Your task to perform on an android device: open a bookmark in the chrome app Image 0: 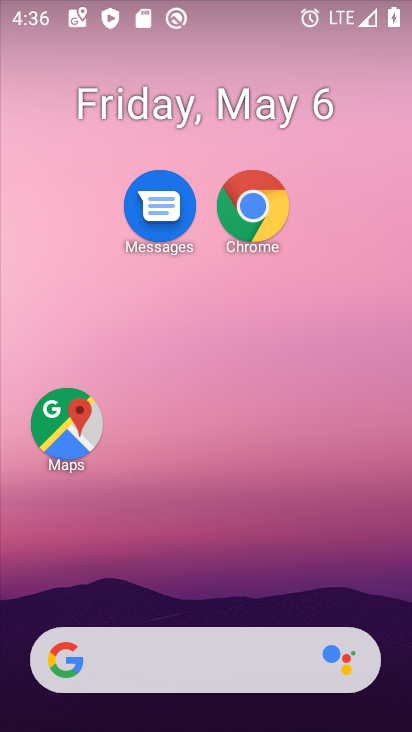
Step 0: click (258, 205)
Your task to perform on an android device: open a bookmark in the chrome app Image 1: 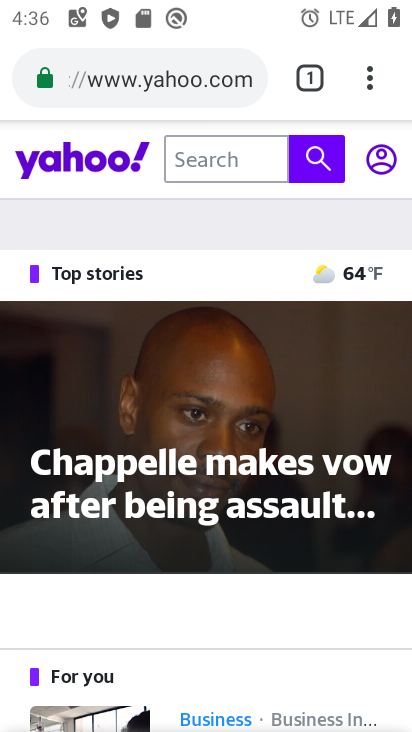
Step 1: click (370, 70)
Your task to perform on an android device: open a bookmark in the chrome app Image 2: 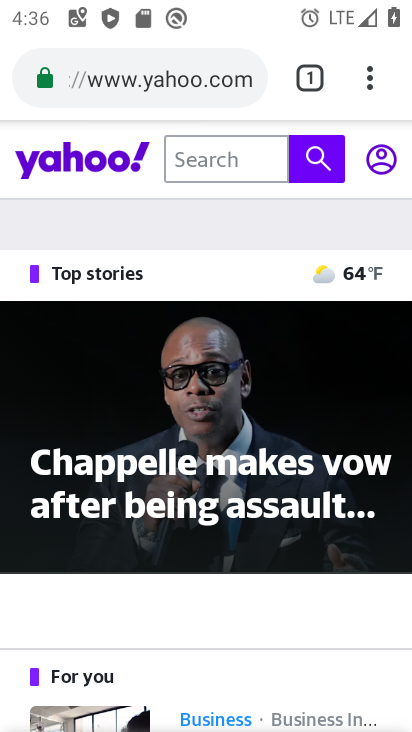
Step 2: click (372, 85)
Your task to perform on an android device: open a bookmark in the chrome app Image 3: 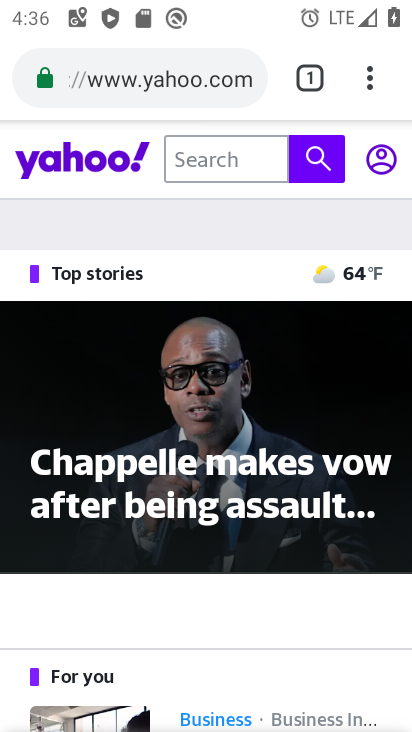
Step 3: click (375, 80)
Your task to perform on an android device: open a bookmark in the chrome app Image 4: 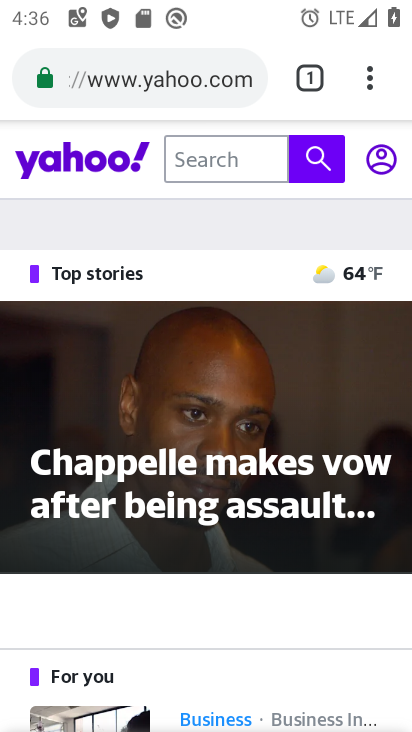
Step 4: click (371, 79)
Your task to perform on an android device: open a bookmark in the chrome app Image 5: 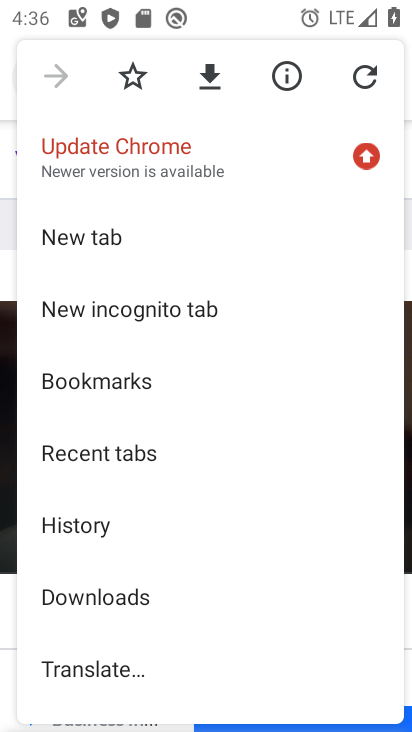
Step 5: drag from (184, 596) to (184, 274)
Your task to perform on an android device: open a bookmark in the chrome app Image 6: 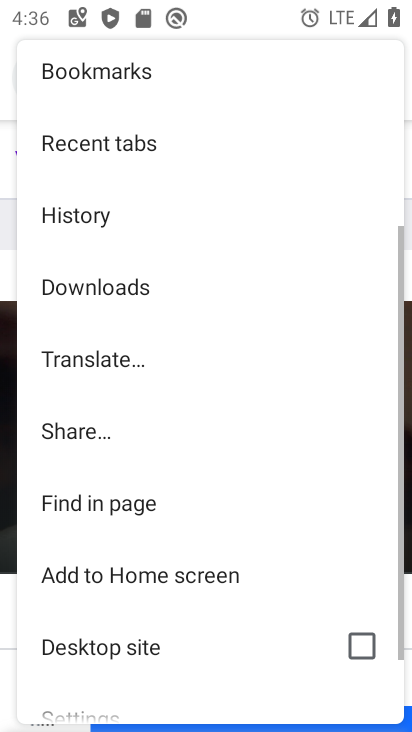
Step 6: click (127, 69)
Your task to perform on an android device: open a bookmark in the chrome app Image 7: 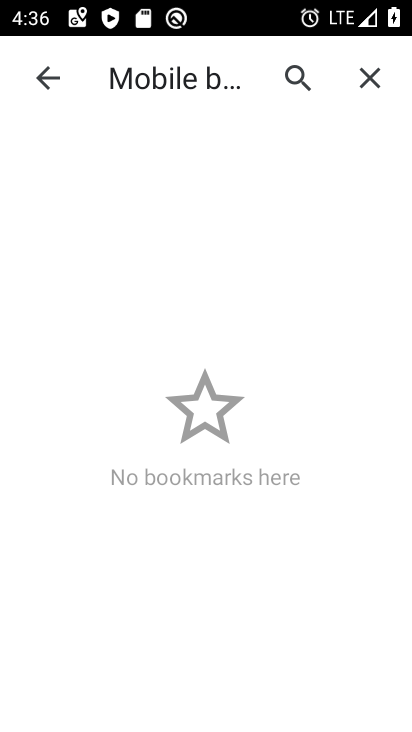
Step 7: task complete